Your task to perform on an android device: Check the news Image 0: 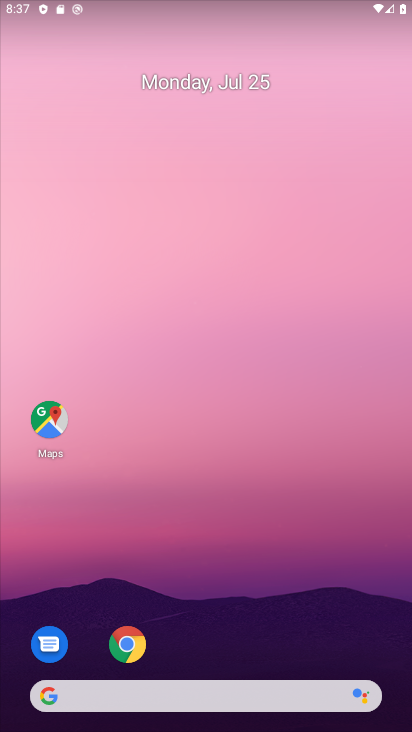
Step 0: click (130, 647)
Your task to perform on an android device: Check the news Image 1: 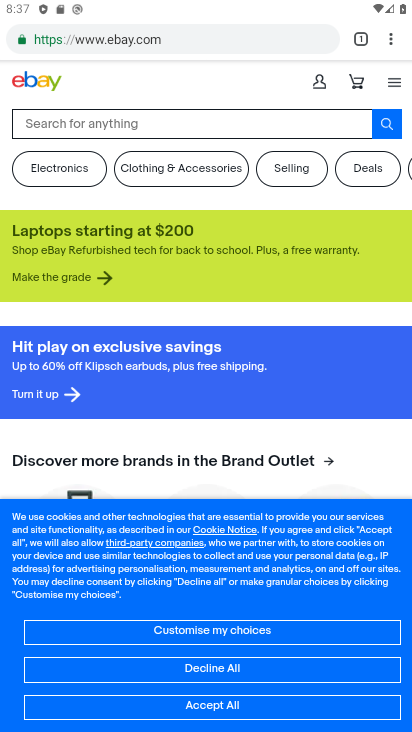
Step 1: click (386, 34)
Your task to perform on an android device: Check the news Image 2: 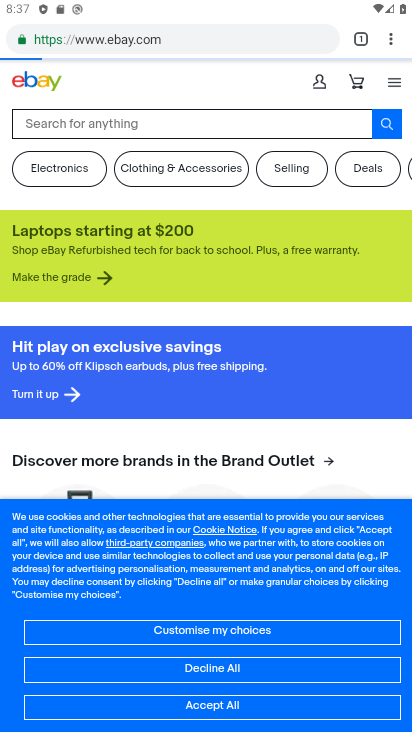
Step 2: click (122, 43)
Your task to perform on an android device: Check the news Image 3: 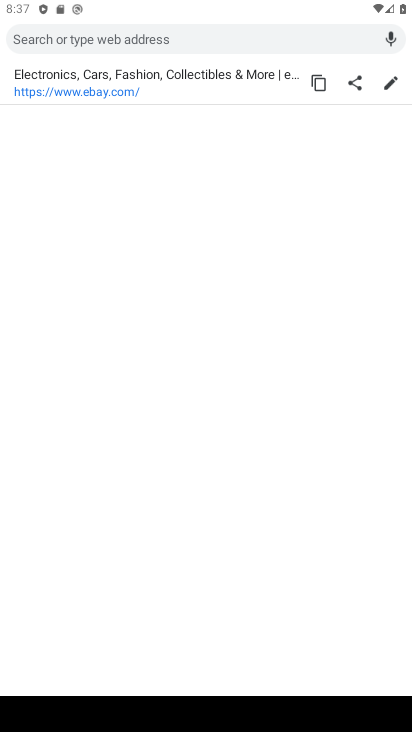
Step 3: type "Check the news"
Your task to perform on an android device: Check the news Image 4: 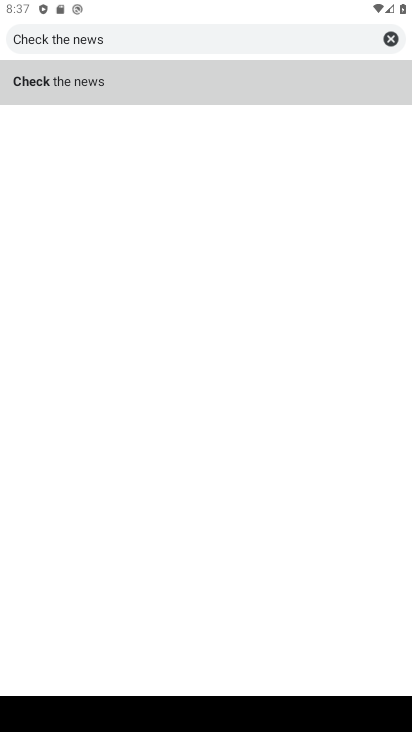
Step 4: click (99, 82)
Your task to perform on an android device: Check the news Image 5: 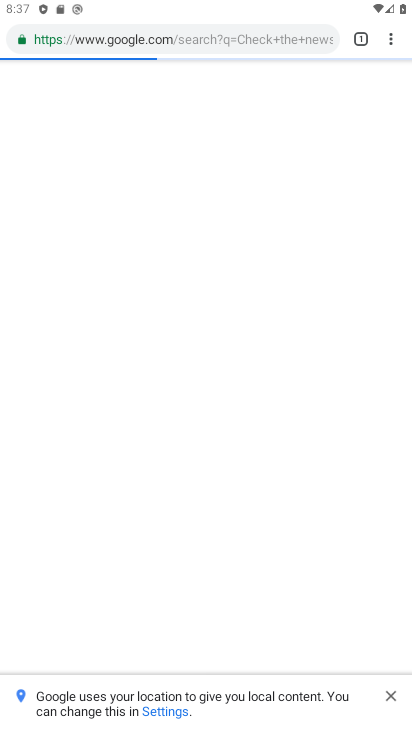
Step 5: task complete